Your task to perform on an android device: turn off sleep mode Image 0: 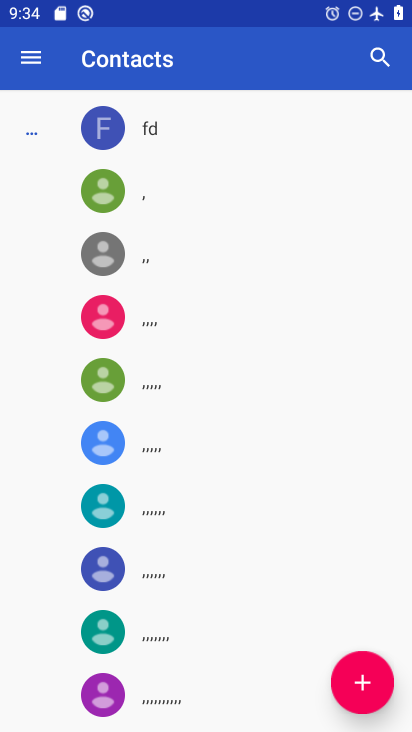
Step 0: press home button
Your task to perform on an android device: turn off sleep mode Image 1: 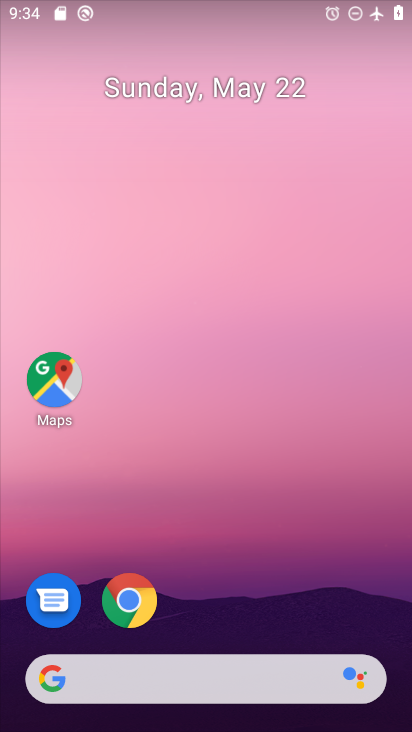
Step 1: drag from (222, 697) to (233, 186)
Your task to perform on an android device: turn off sleep mode Image 2: 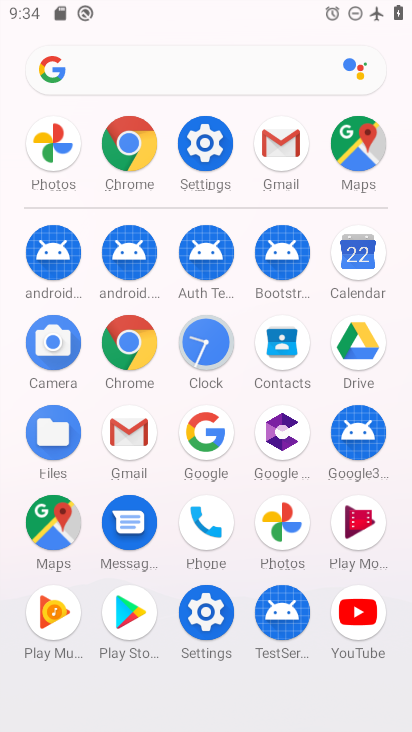
Step 2: click (208, 175)
Your task to perform on an android device: turn off sleep mode Image 3: 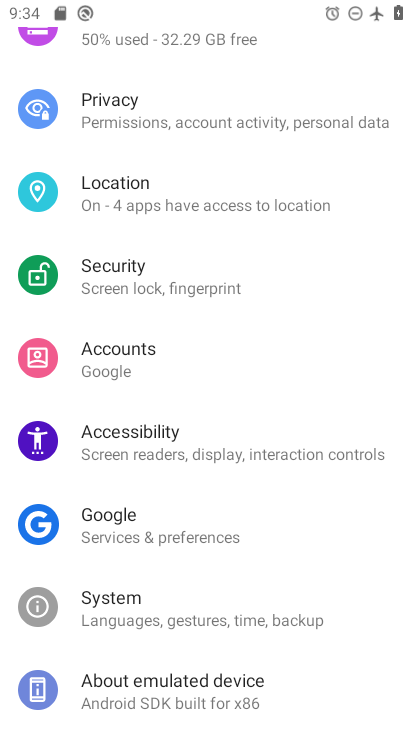
Step 3: drag from (237, 253) to (238, 705)
Your task to perform on an android device: turn off sleep mode Image 4: 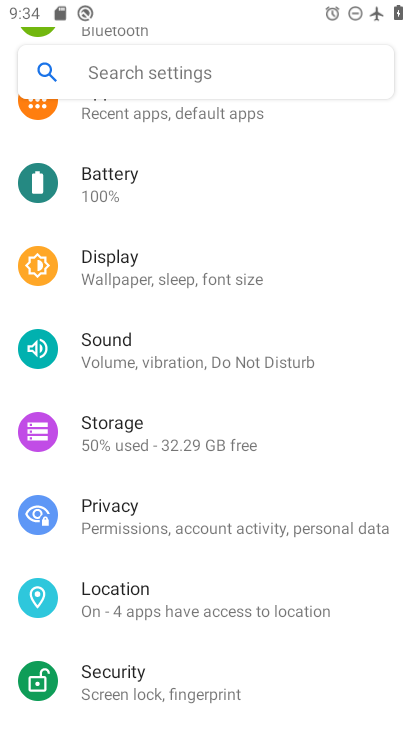
Step 4: click (228, 273)
Your task to perform on an android device: turn off sleep mode Image 5: 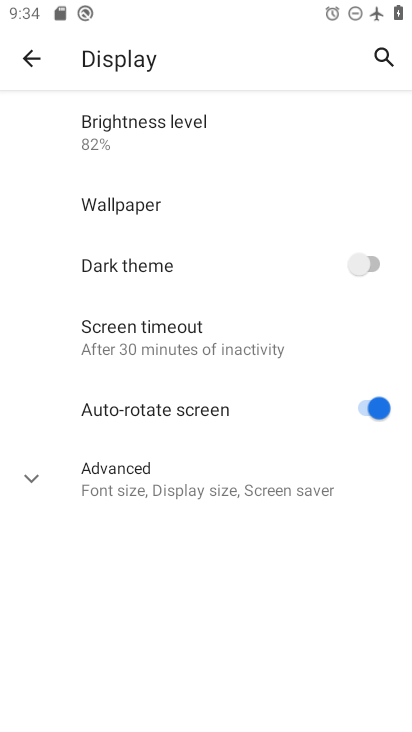
Step 5: click (218, 489)
Your task to perform on an android device: turn off sleep mode Image 6: 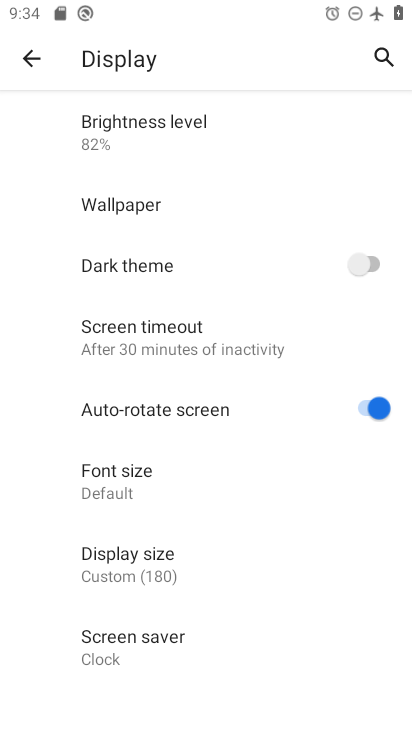
Step 6: task complete